Your task to perform on an android device: clear history in the chrome app Image 0: 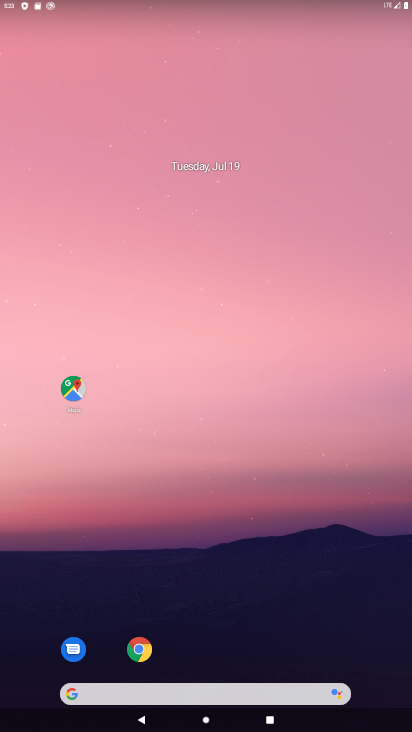
Step 0: drag from (260, 625) to (263, 15)
Your task to perform on an android device: clear history in the chrome app Image 1: 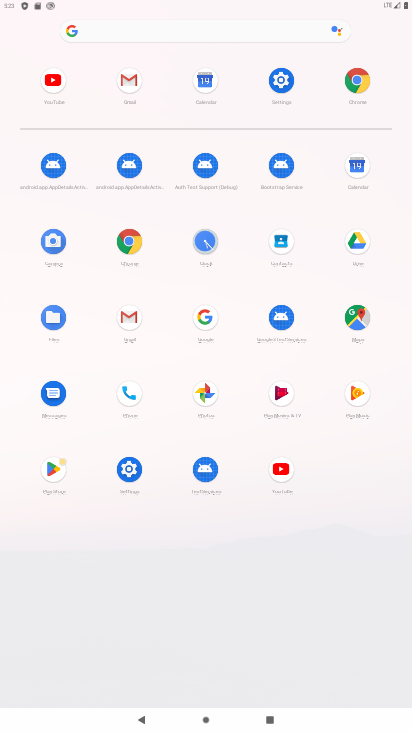
Step 1: click (128, 246)
Your task to perform on an android device: clear history in the chrome app Image 2: 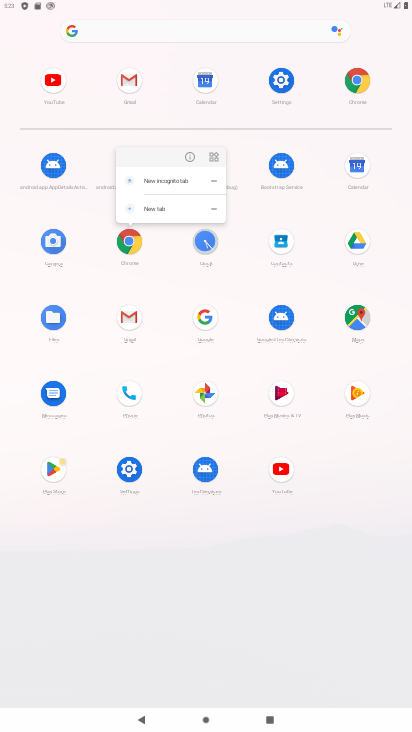
Step 2: click (124, 241)
Your task to perform on an android device: clear history in the chrome app Image 3: 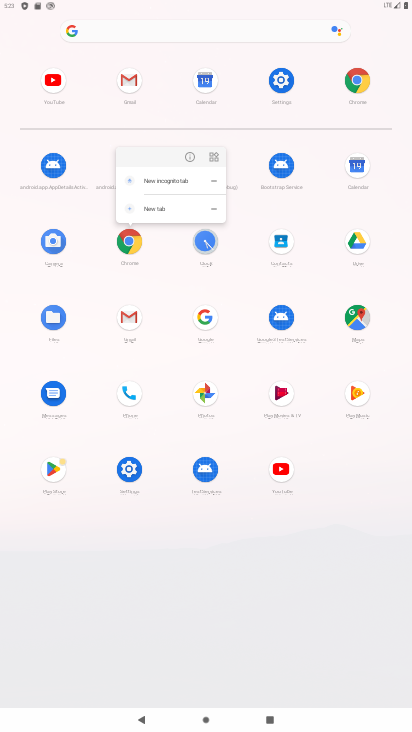
Step 3: click (128, 243)
Your task to perform on an android device: clear history in the chrome app Image 4: 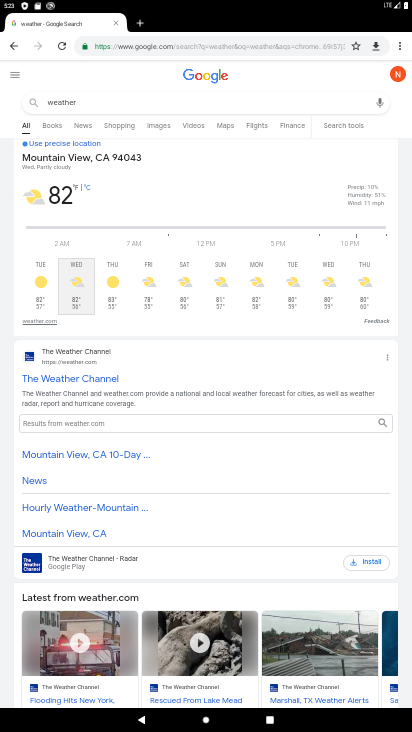
Step 4: drag from (395, 43) to (304, 166)
Your task to perform on an android device: clear history in the chrome app Image 5: 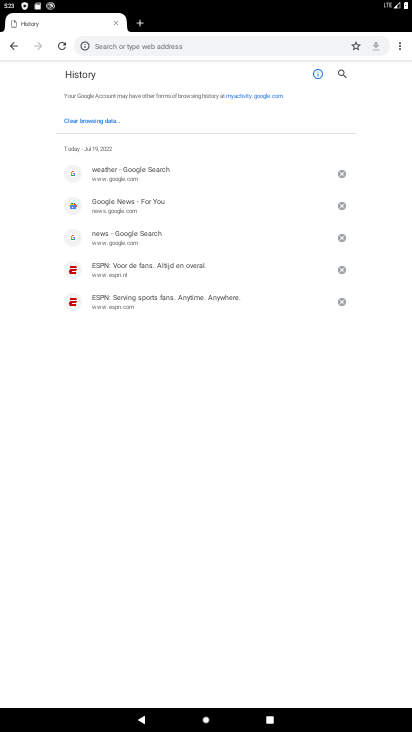
Step 5: click (107, 123)
Your task to perform on an android device: clear history in the chrome app Image 6: 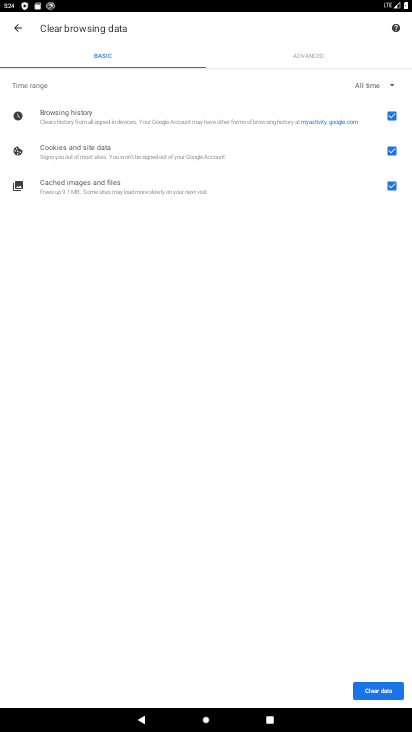
Step 6: click (384, 686)
Your task to perform on an android device: clear history in the chrome app Image 7: 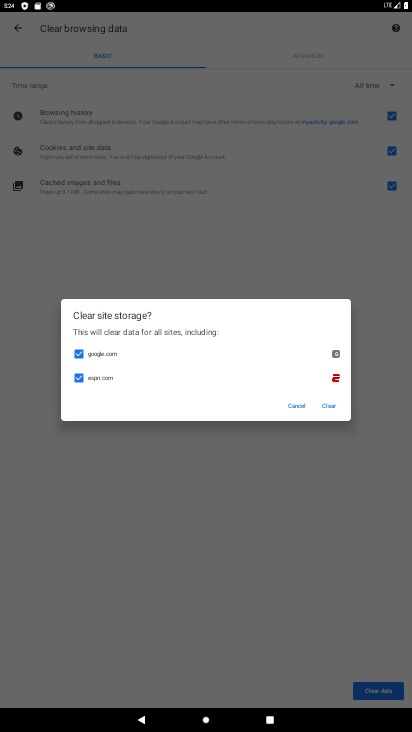
Step 7: click (326, 405)
Your task to perform on an android device: clear history in the chrome app Image 8: 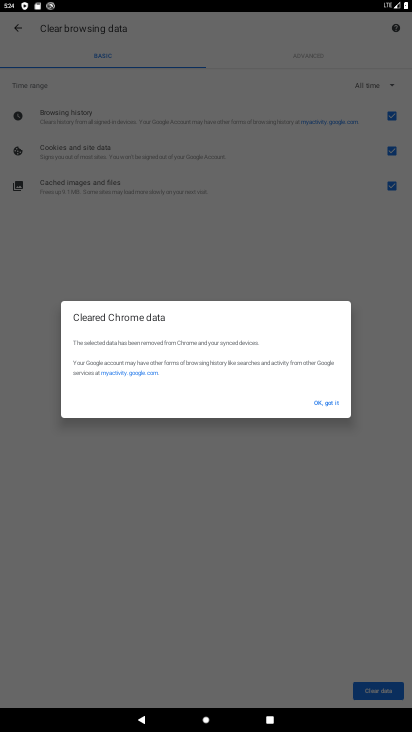
Step 8: task complete